Your task to perform on an android device: What's the weather going to be tomorrow? Image 0: 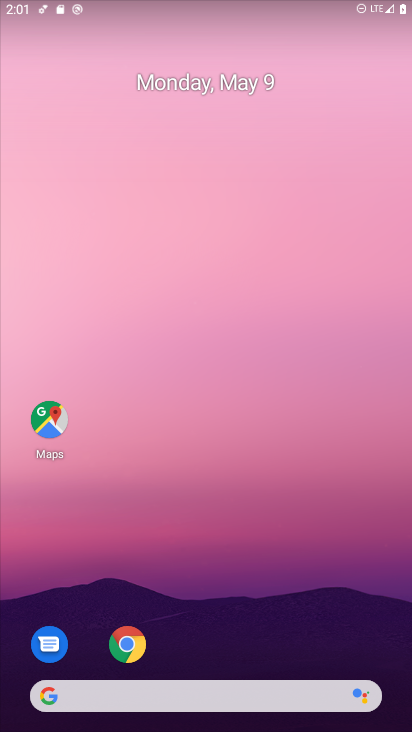
Step 0: drag from (268, 626) to (243, 0)
Your task to perform on an android device: What's the weather going to be tomorrow? Image 1: 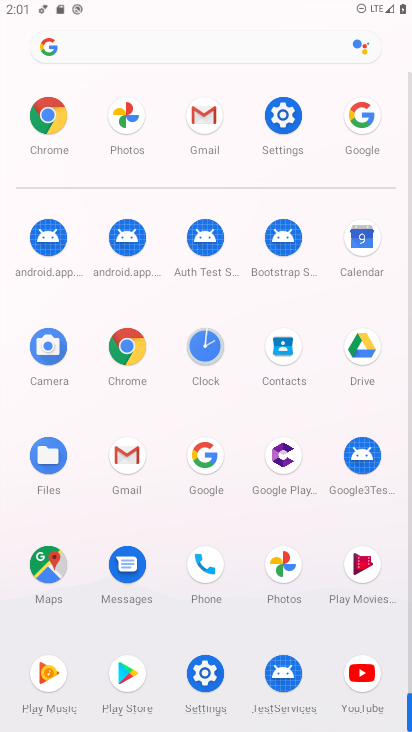
Step 1: click (217, 489)
Your task to perform on an android device: What's the weather going to be tomorrow? Image 2: 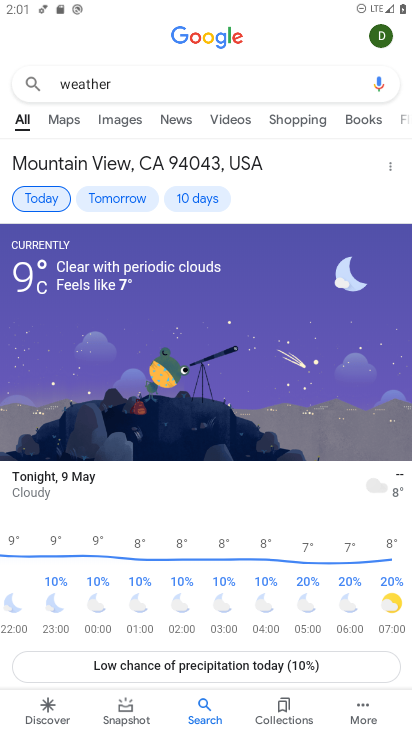
Step 2: click (141, 210)
Your task to perform on an android device: What's the weather going to be tomorrow? Image 3: 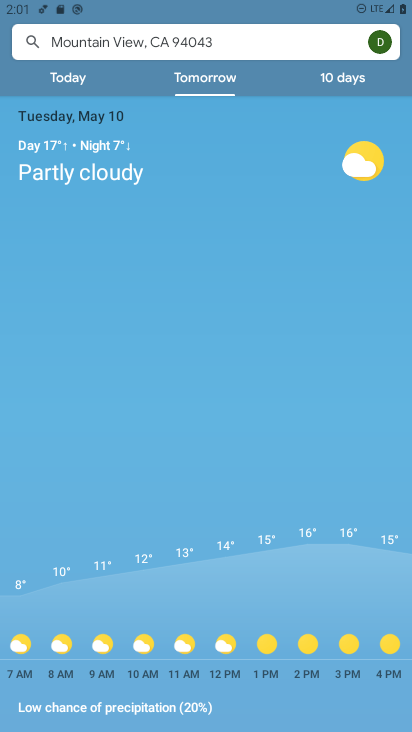
Step 3: task complete